Your task to perform on an android device: open app "Adobe Acrobat Reader: Edit PDF" (install if not already installed) Image 0: 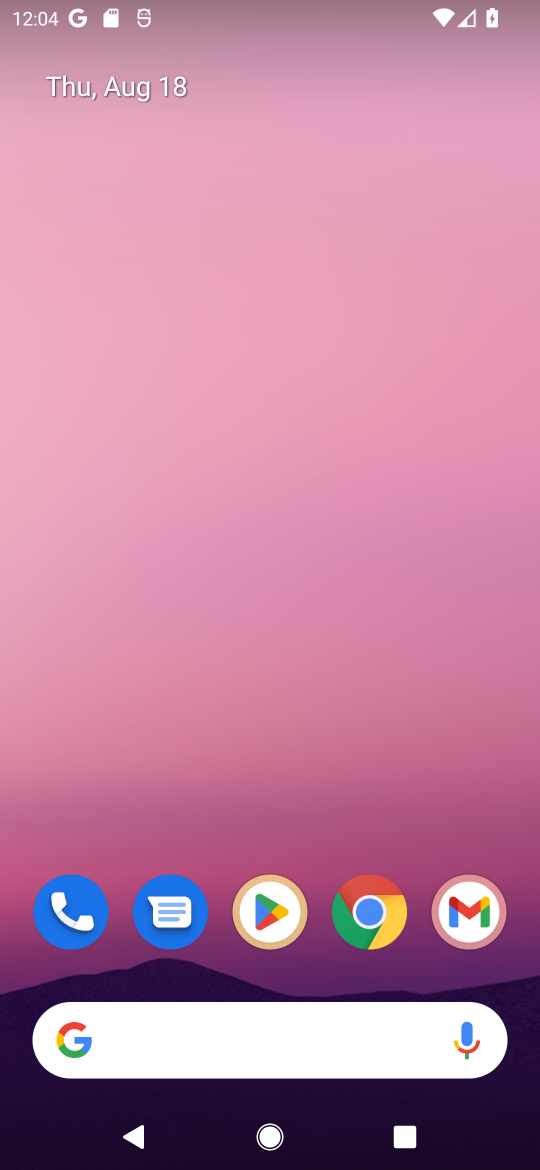
Step 0: click (241, 916)
Your task to perform on an android device: open app "Adobe Acrobat Reader: Edit PDF" (install if not already installed) Image 1: 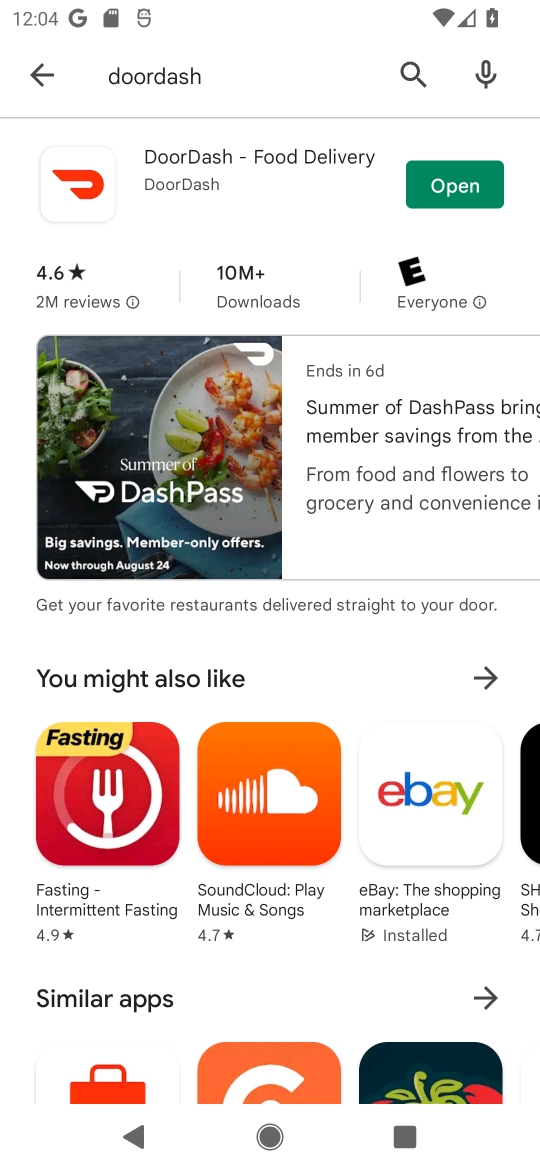
Step 1: click (413, 79)
Your task to perform on an android device: open app "Adobe Acrobat Reader: Edit PDF" (install if not already installed) Image 2: 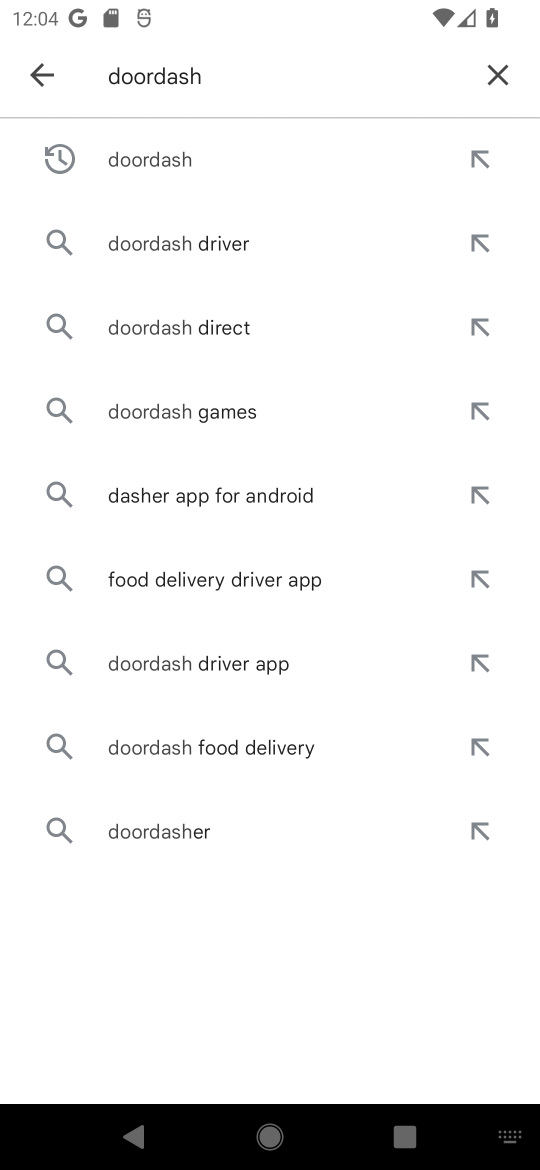
Step 2: click (494, 66)
Your task to perform on an android device: open app "Adobe Acrobat Reader: Edit PDF" (install if not already installed) Image 3: 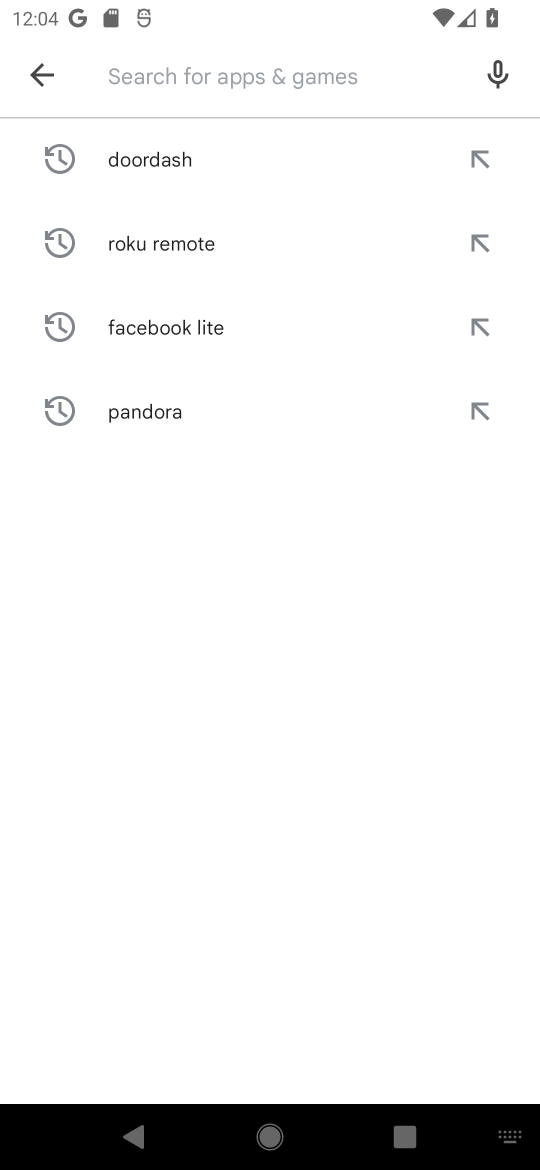
Step 3: click (218, 83)
Your task to perform on an android device: open app "Adobe Acrobat Reader: Edit PDF" (install if not already installed) Image 4: 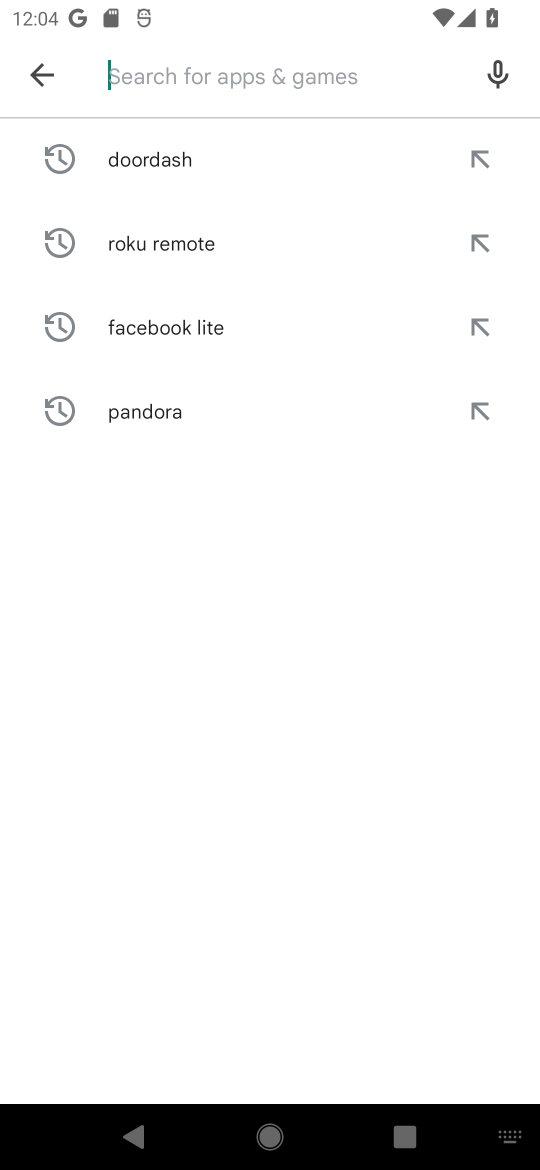
Step 4: type "adobe"
Your task to perform on an android device: open app "Adobe Acrobat Reader: Edit PDF" (install if not already installed) Image 5: 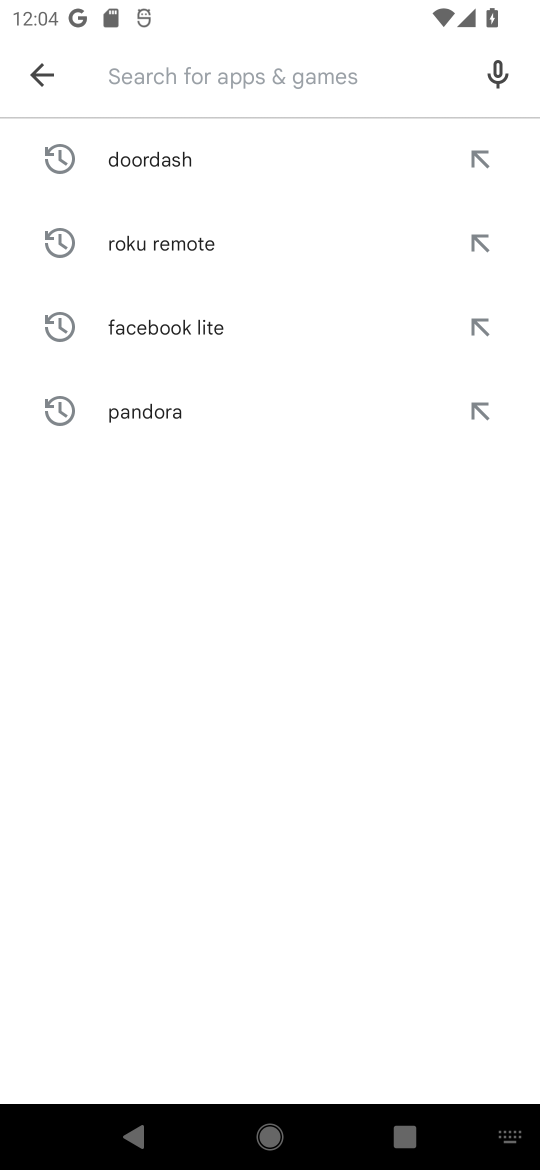
Step 5: click (172, 599)
Your task to perform on an android device: open app "Adobe Acrobat Reader: Edit PDF" (install if not already installed) Image 6: 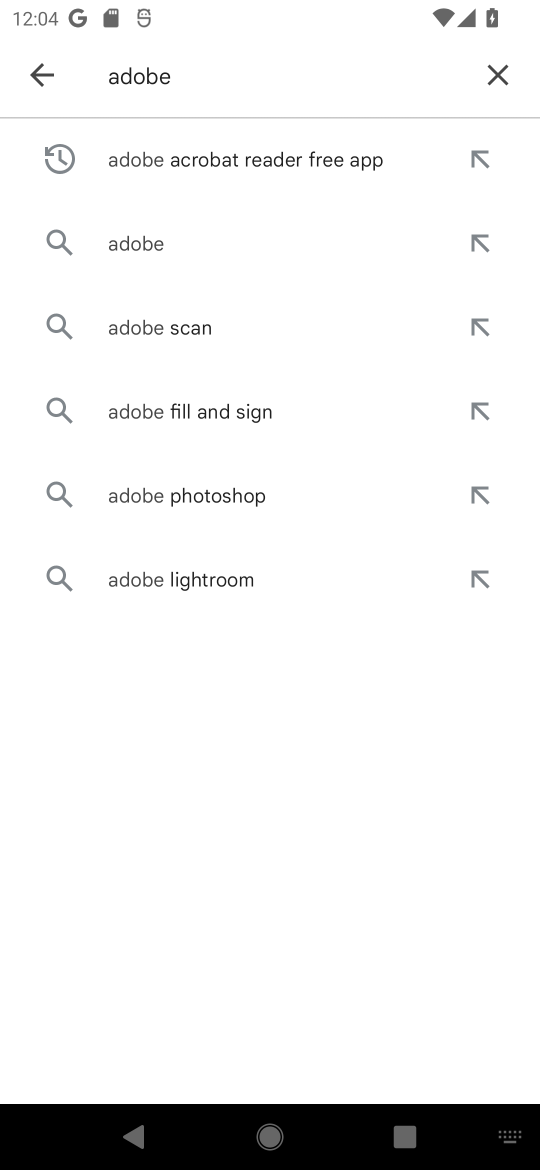
Step 6: click (219, 136)
Your task to perform on an android device: open app "Adobe Acrobat Reader: Edit PDF" (install if not already installed) Image 7: 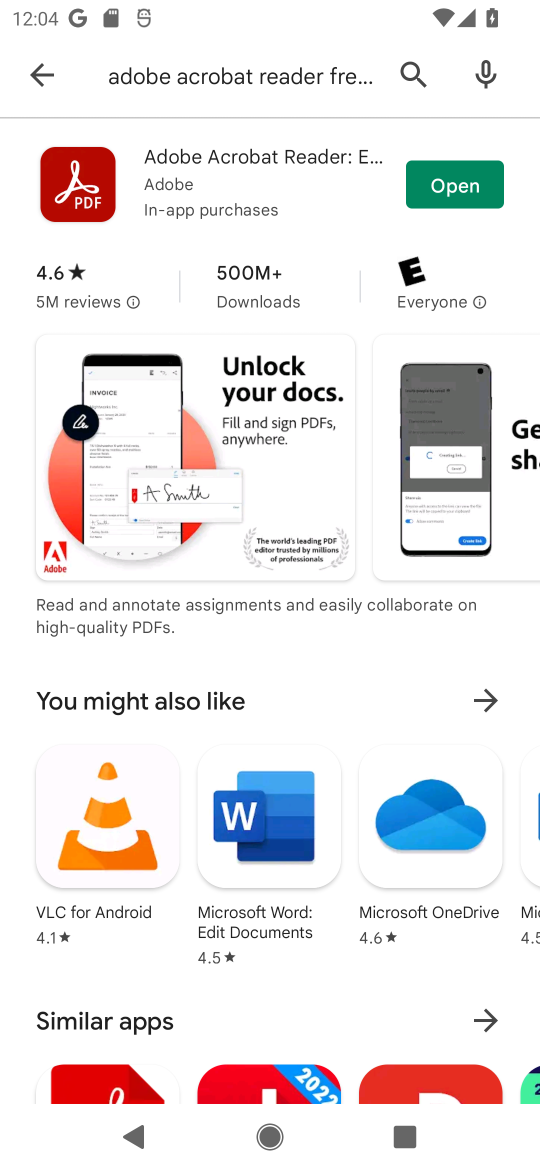
Step 7: click (443, 186)
Your task to perform on an android device: open app "Adobe Acrobat Reader: Edit PDF" (install if not already installed) Image 8: 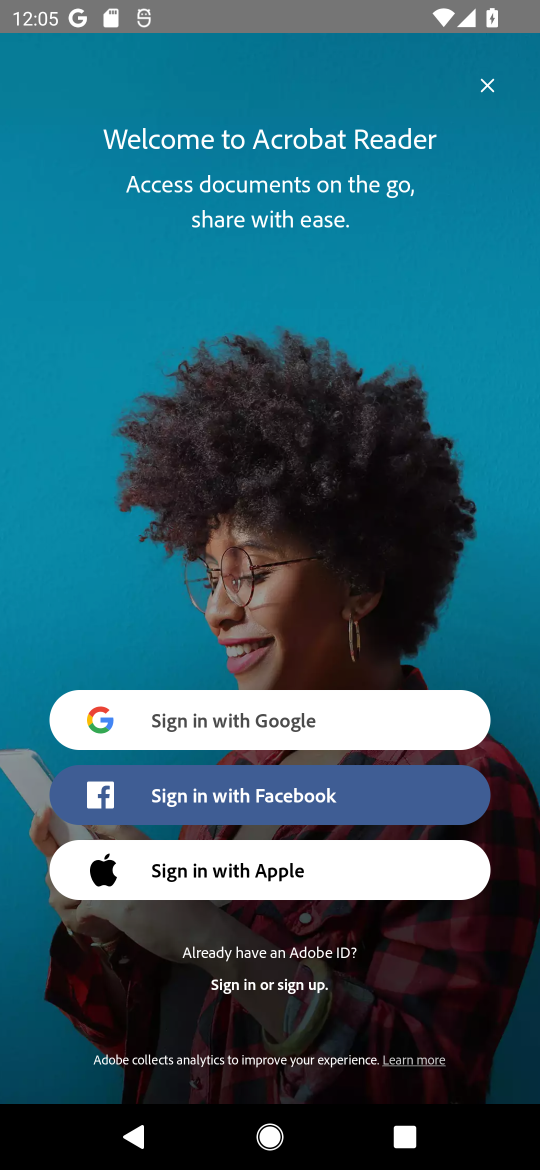
Step 8: task complete